Your task to perform on an android device: turn on bluetooth scan Image 0: 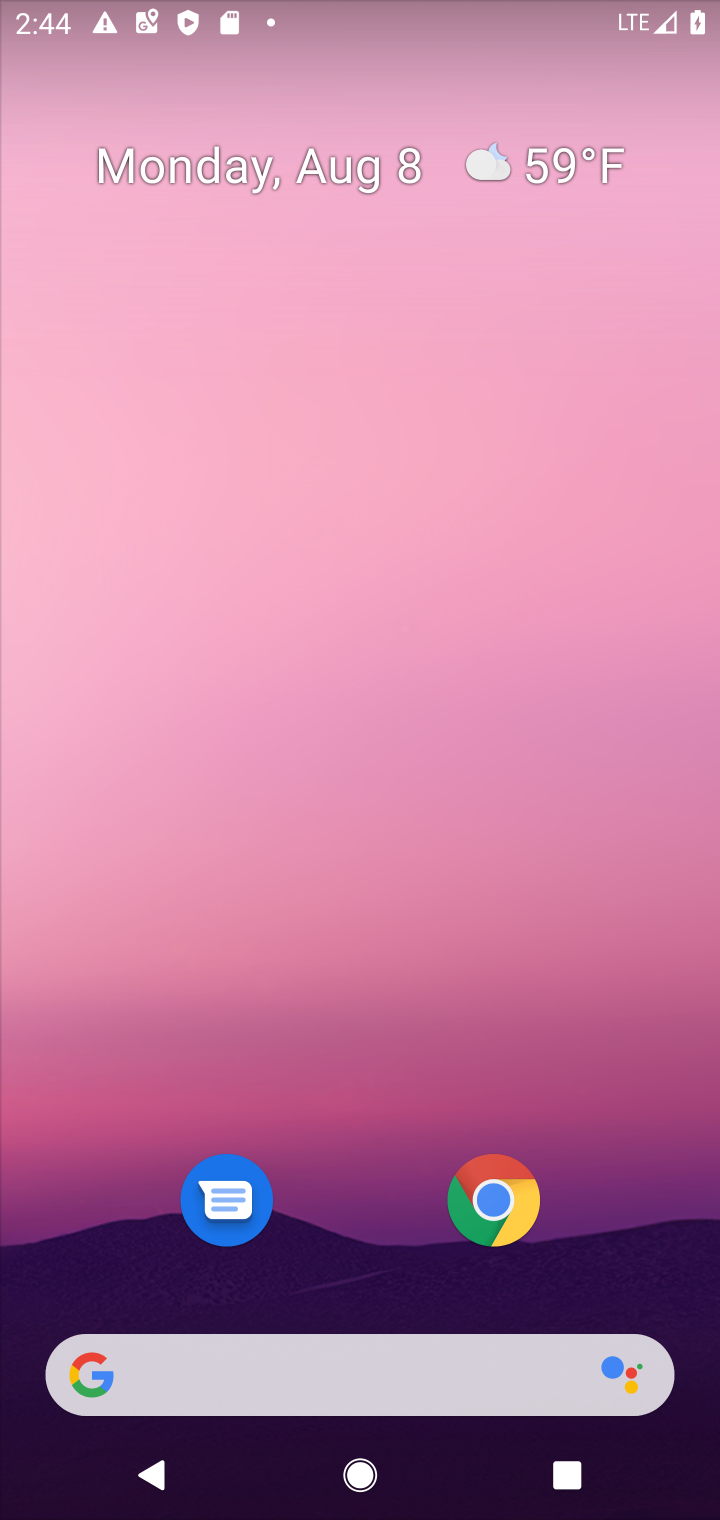
Step 0: drag from (398, 909) to (479, 217)
Your task to perform on an android device: turn on bluetooth scan Image 1: 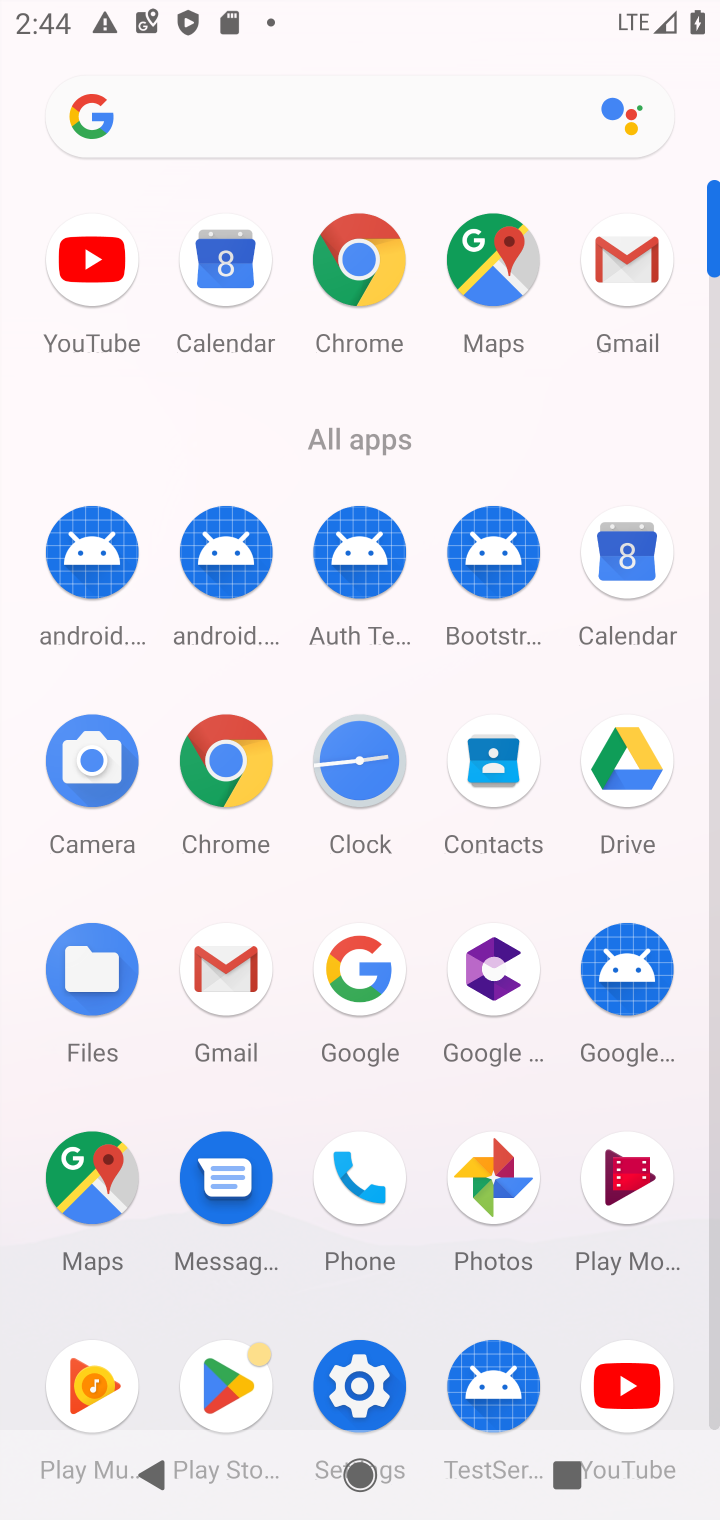
Step 1: drag from (365, 1146) to (502, 298)
Your task to perform on an android device: turn on bluetooth scan Image 2: 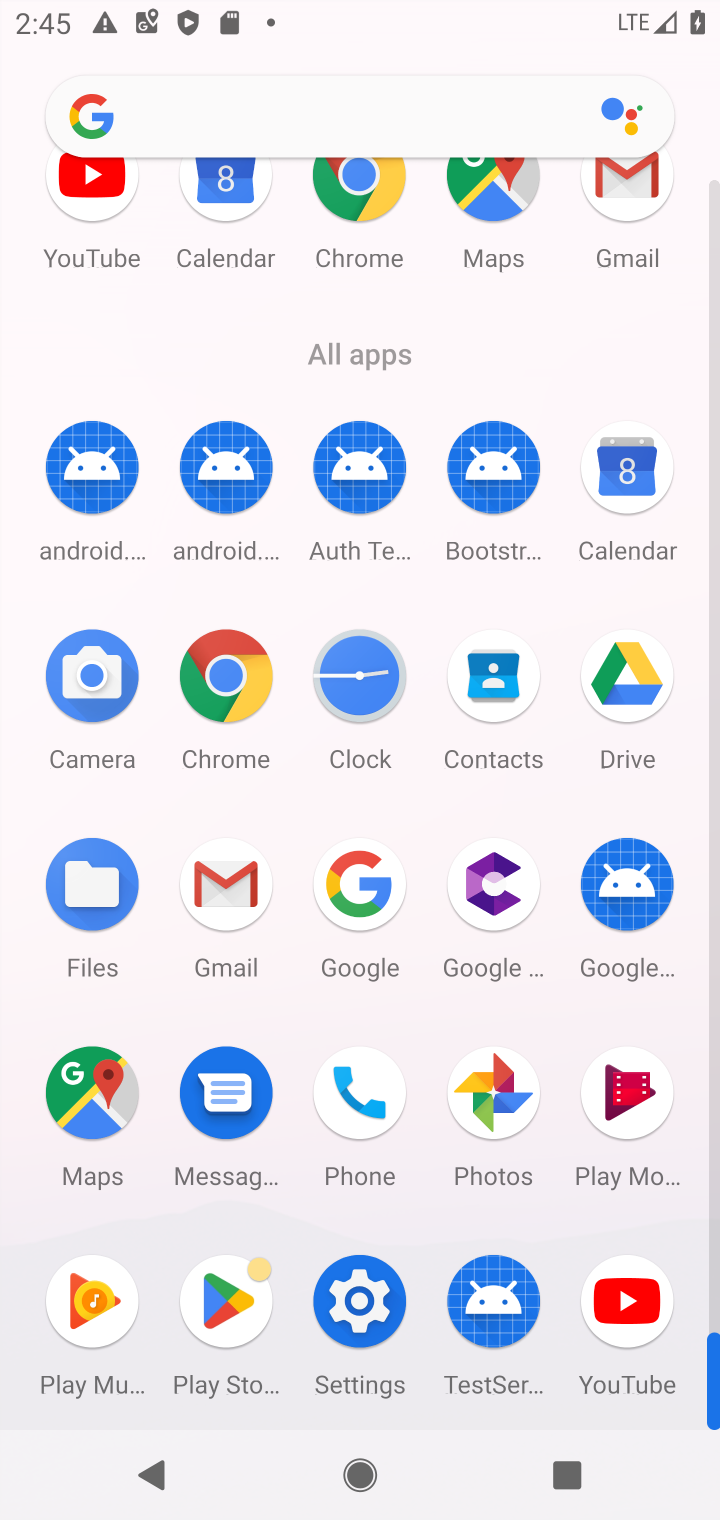
Step 2: click (358, 1304)
Your task to perform on an android device: turn on bluetooth scan Image 3: 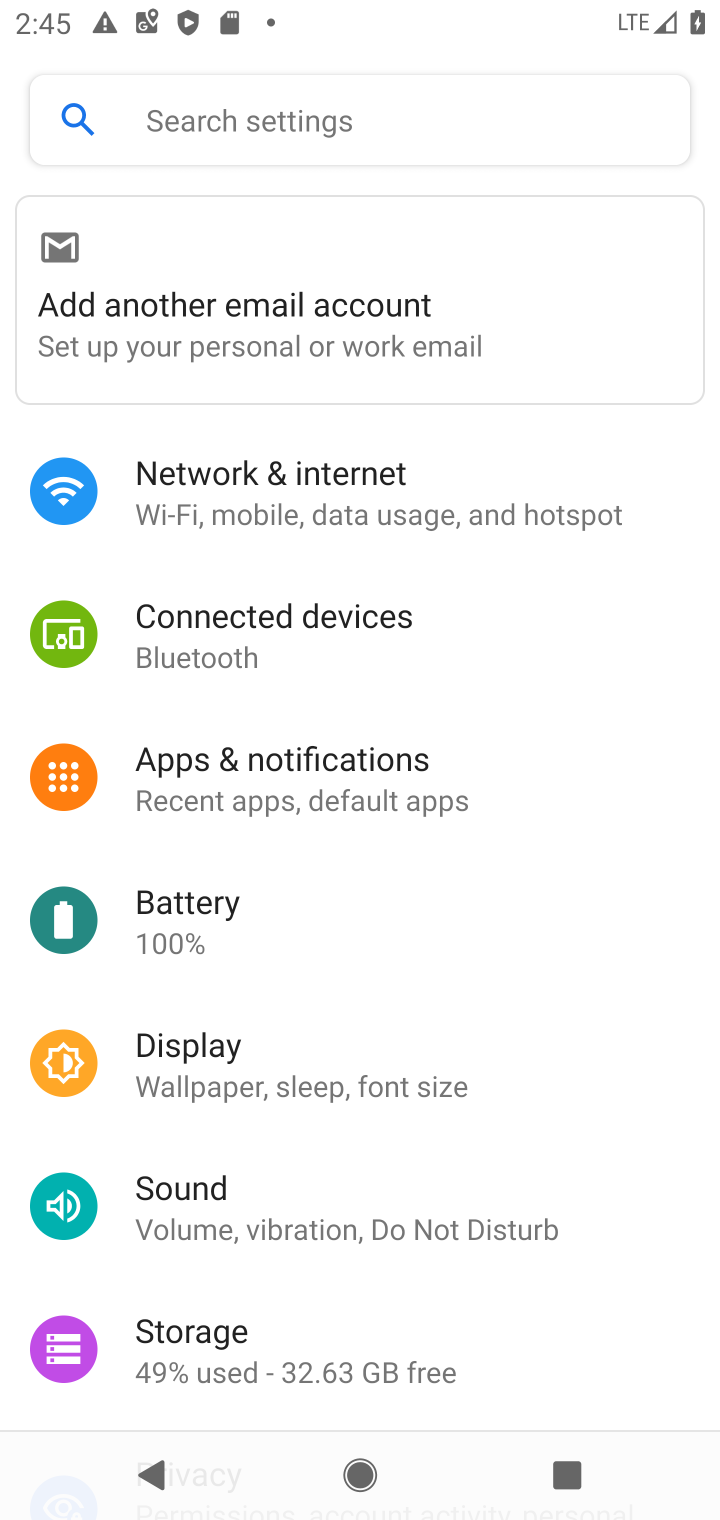
Step 3: click (307, 631)
Your task to perform on an android device: turn on bluetooth scan Image 4: 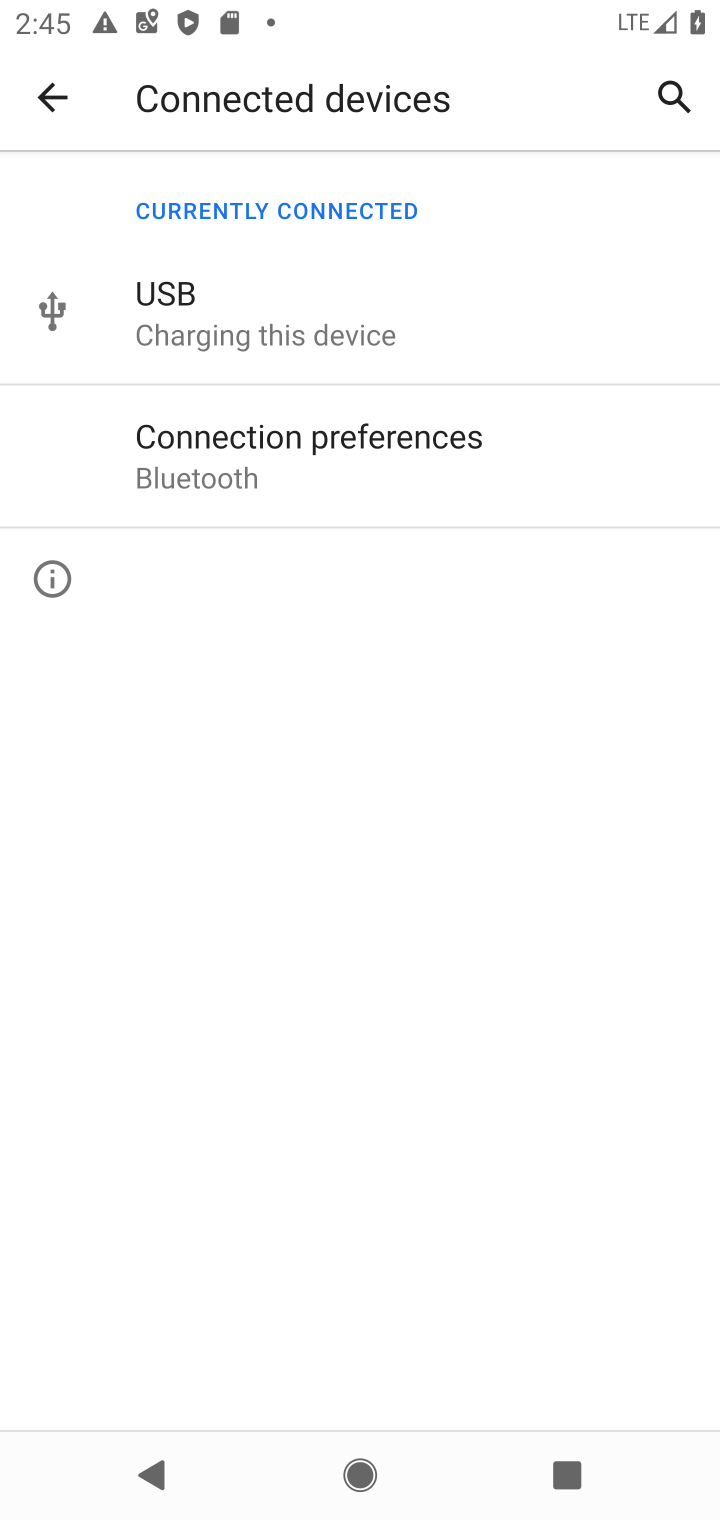
Step 4: click (233, 427)
Your task to perform on an android device: turn on bluetooth scan Image 5: 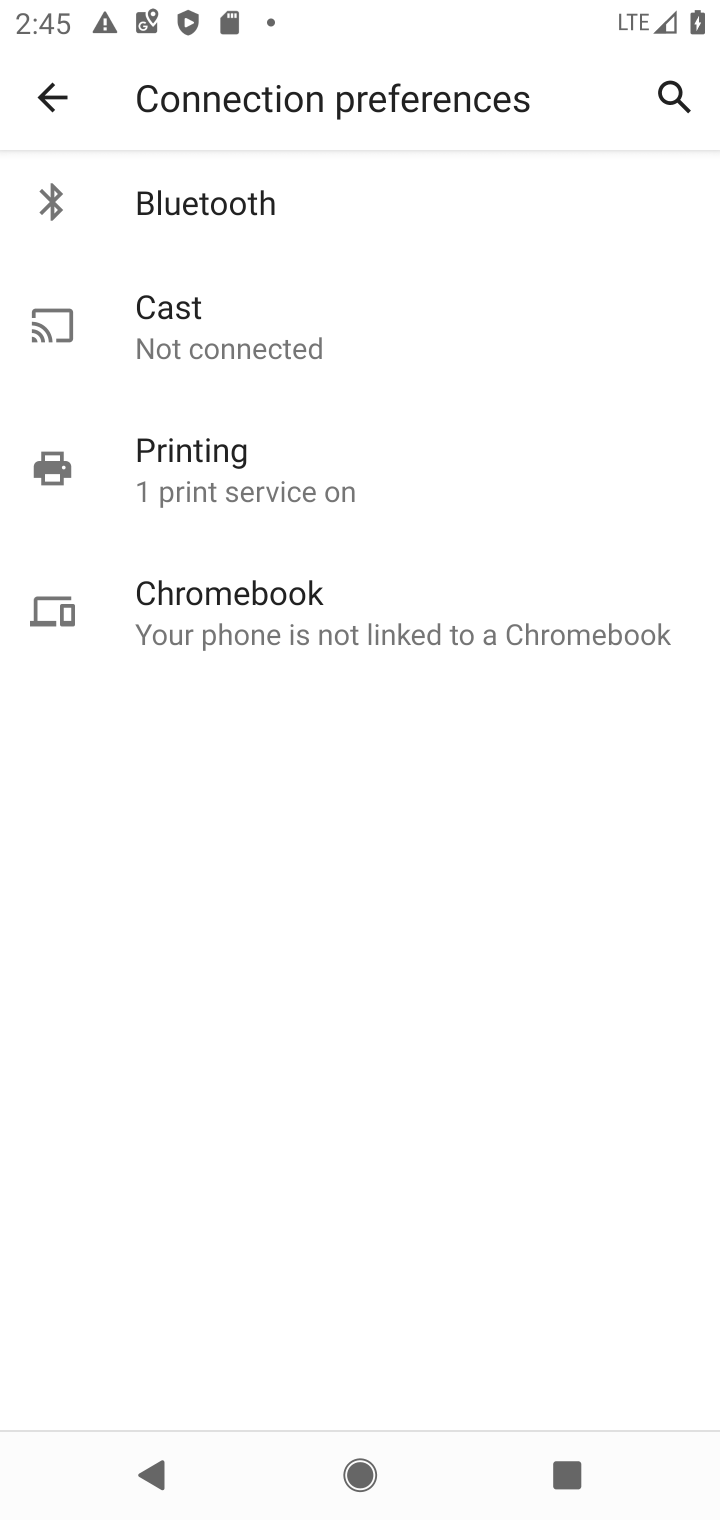
Step 5: click (245, 181)
Your task to perform on an android device: turn on bluetooth scan Image 6: 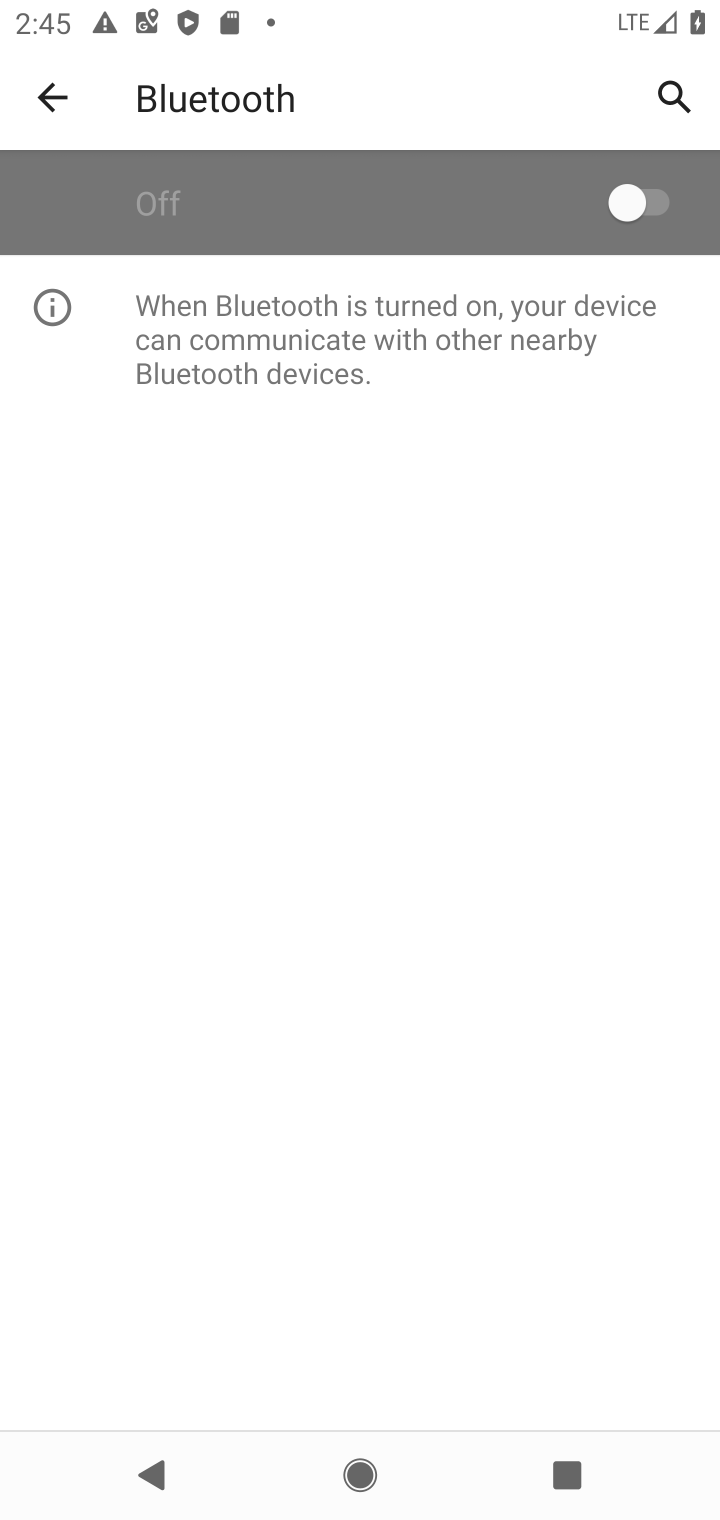
Step 6: click (630, 190)
Your task to perform on an android device: turn on bluetooth scan Image 7: 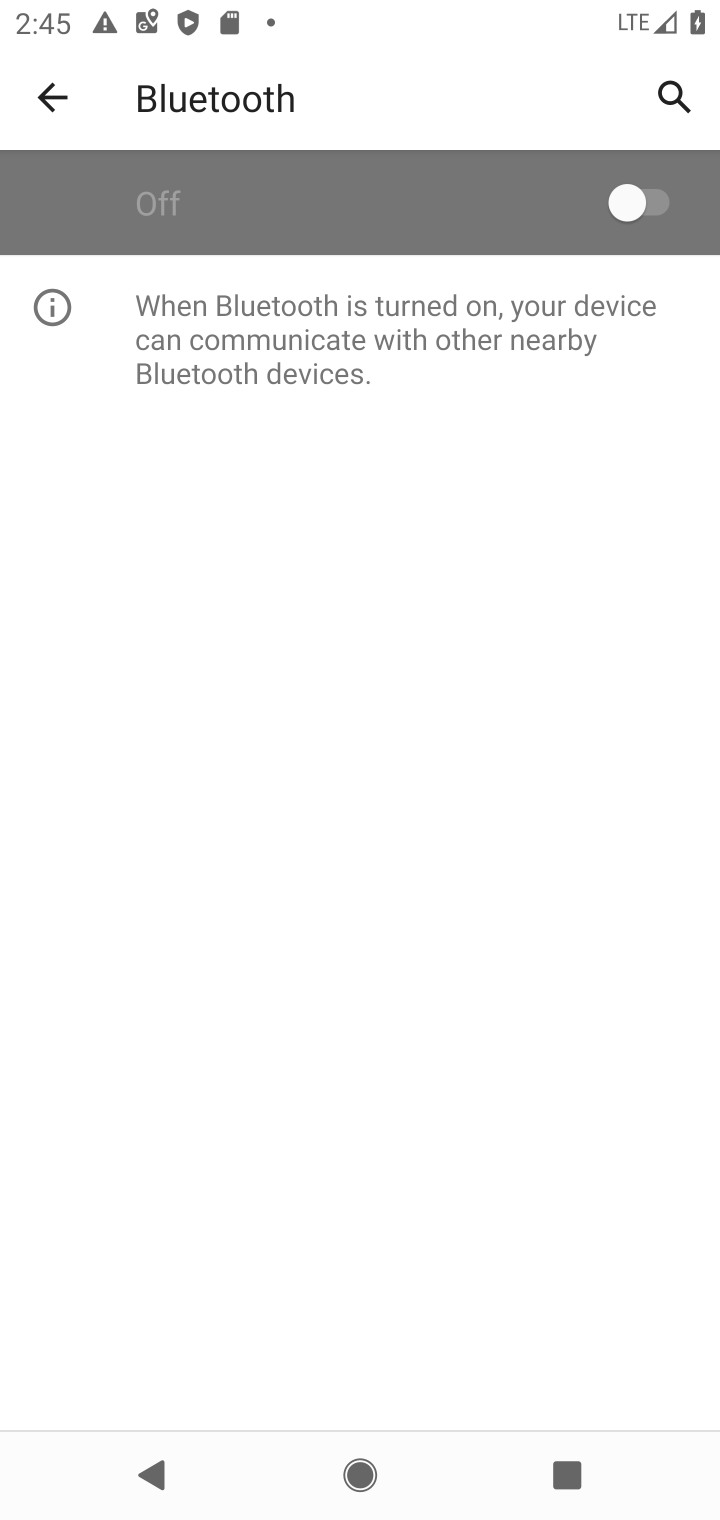
Step 7: task complete